Your task to perform on an android device: Go to eBay Image 0: 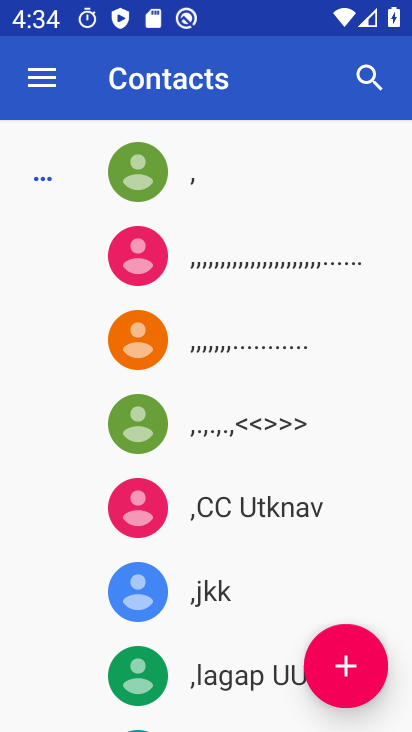
Step 0: press home button
Your task to perform on an android device: Go to eBay Image 1: 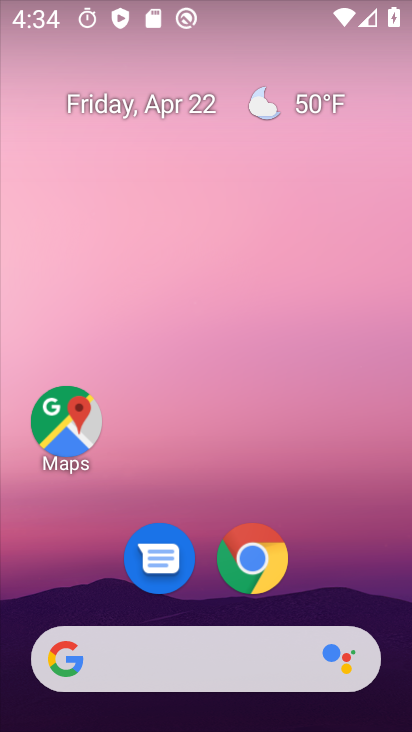
Step 1: drag from (290, 465) to (232, 134)
Your task to perform on an android device: Go to eBay Image 2: 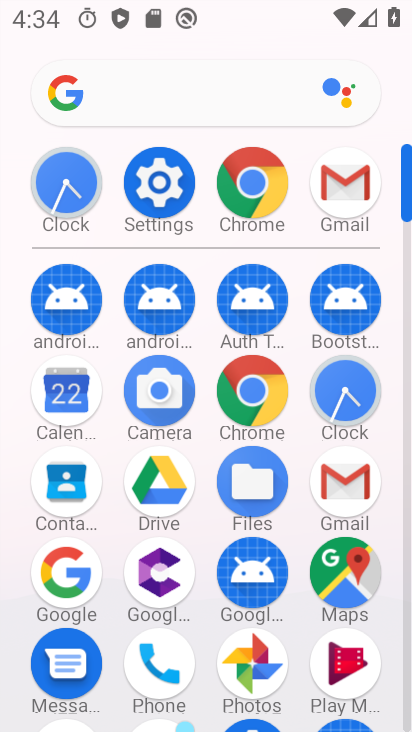
Step 2: drag from (315, 616) to (257, 333)
Your task to perform on an android device: Go to eBay Image 3: 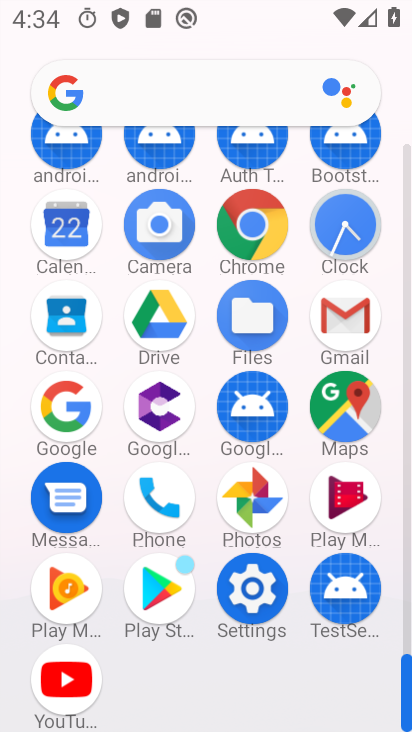
Step 3: click (275, 262)
Your task to perform on an android device: Go to eBay Image 4: 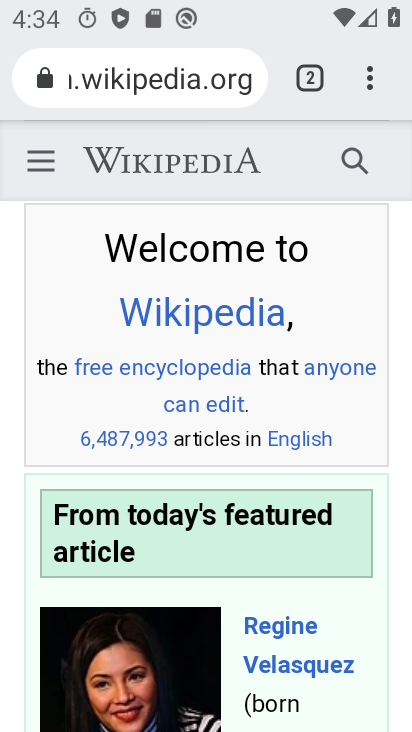
Step 4: click (307, 72)
Your task to perform on an android device: Go to eBay Image 5: 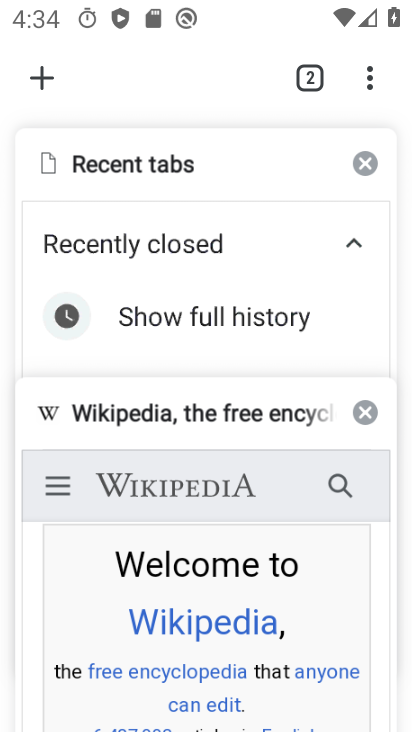
Step 5: click (46, 74)
Your task to perform on an android device: Go to eBay Image 6: 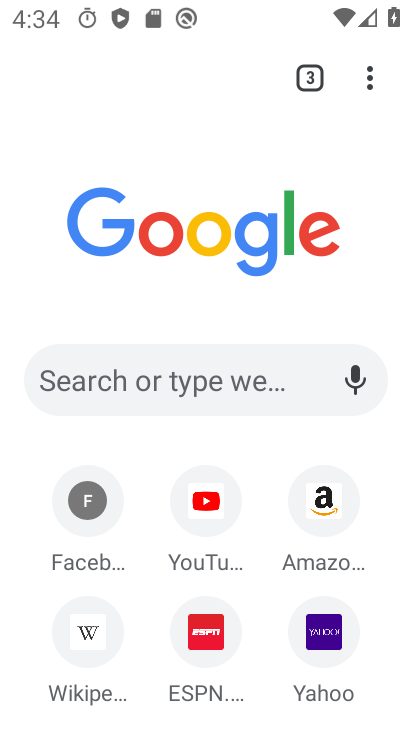
Step 6: drag from (282, 616) to (268, 331)
Your task to perform on an android device: Go to eBay Image 7: 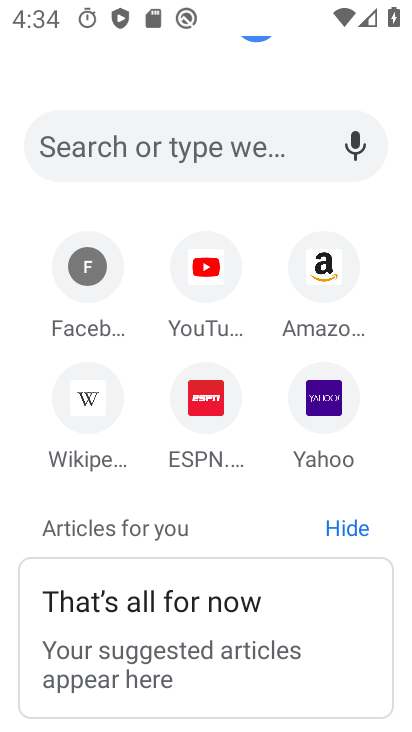
Step 7: drag from (237, 302) to (193, 612)
Your task to perform on an android device: Go to eBay Image 8: 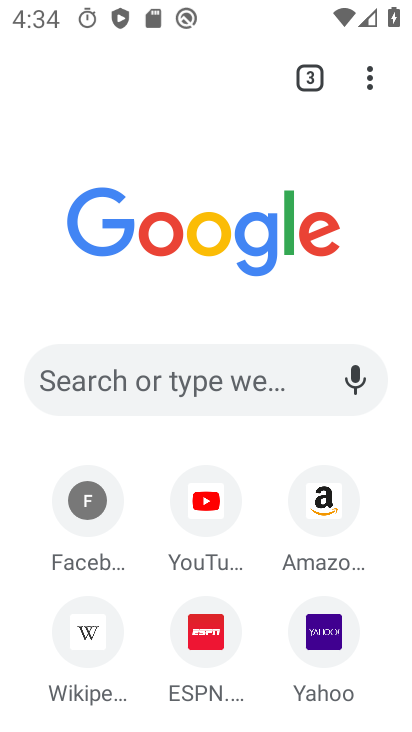
Step 8: click (205, 372)
Your task to perform on an android device: Go to eBay Image 9: 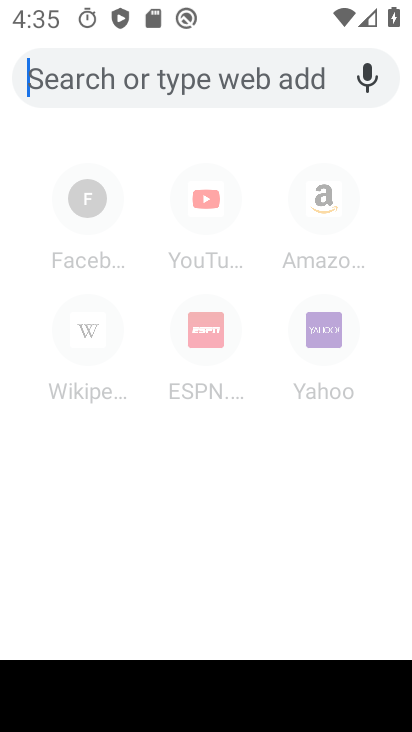
Step 9: type "www.ebay.com"
Your task to perform on an android device: Go to eBay Image 10: 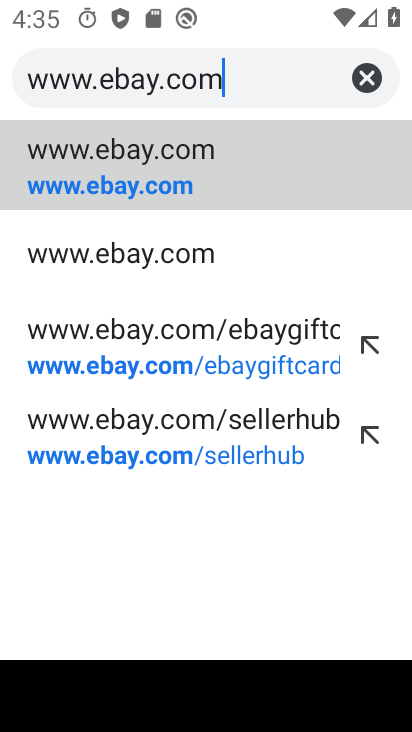
Step 10: click (181, 171)
Your task to perform on an android device: Go to eBay Image 11: 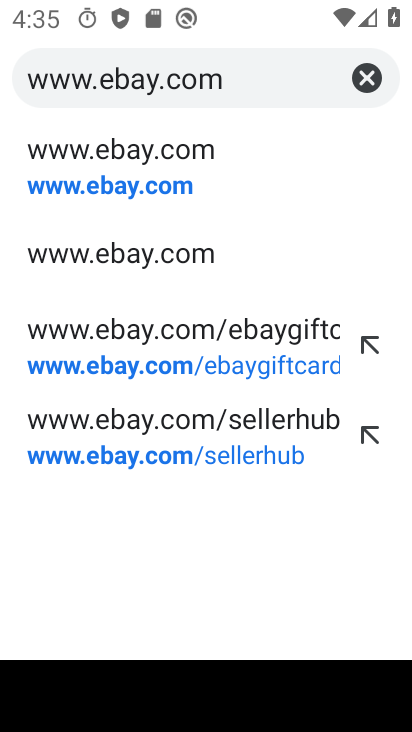
Step 11: click (163, 193)
Your task to perform on an android device: Go to eBay Image 12: 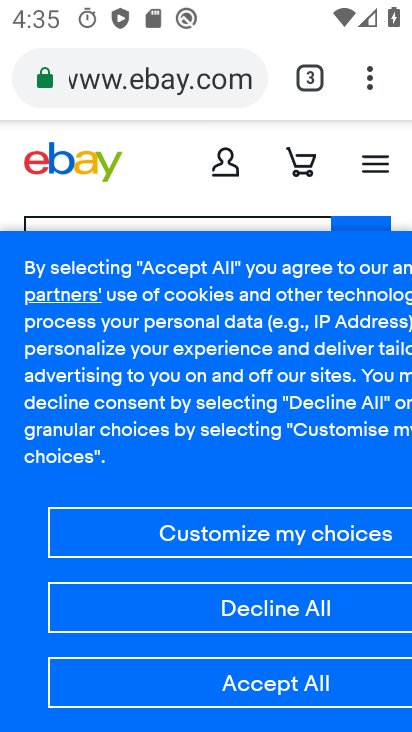
Step 12: task complete